Your task to perform on an android device: Search for pizza restaurants on Maps Image 0: 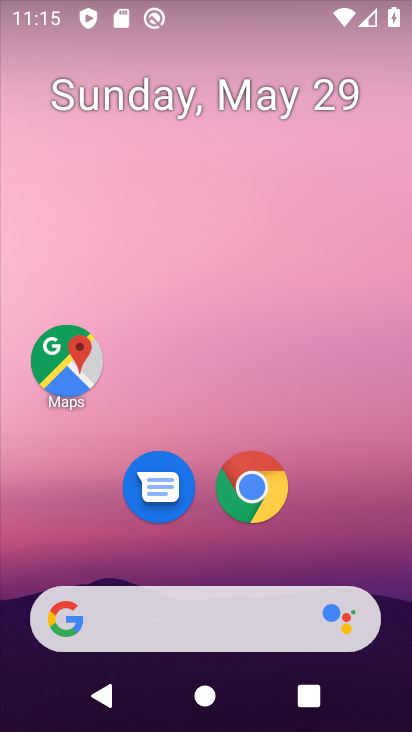
Step 0: drag from (390, 569) to (360, 149)
Your task to perform on an android device: Search for pizza restaurants on Maps Image 1: 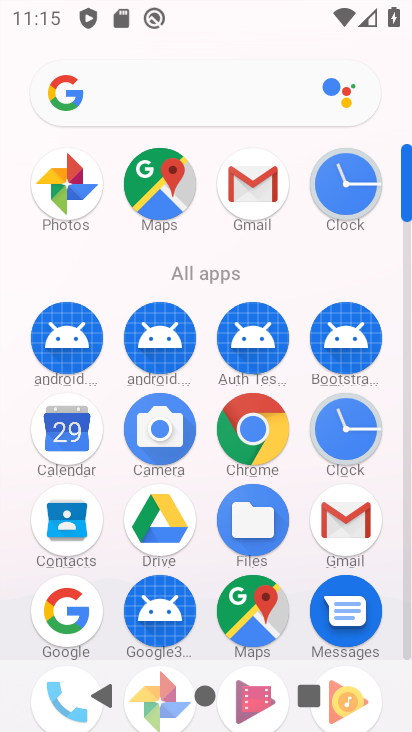
Step 1: click (264, 633)
Your task to perform on an android device: Search for pizza restaurants on Maps Image 2: 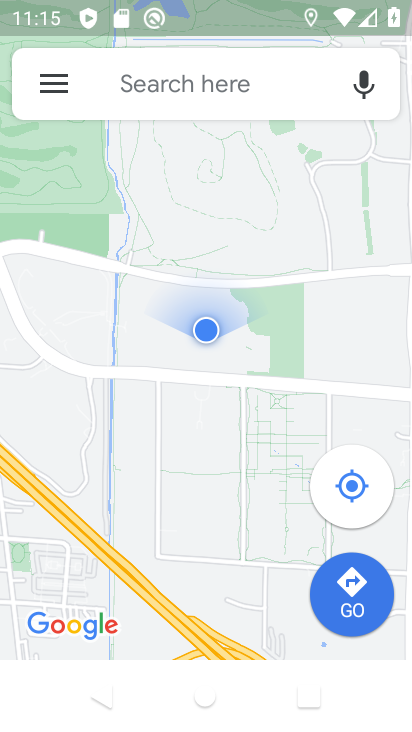
Step 2: click (217, 88)
Your task to perform on an android device: Search for pizza restaurants on Maps Image 3: 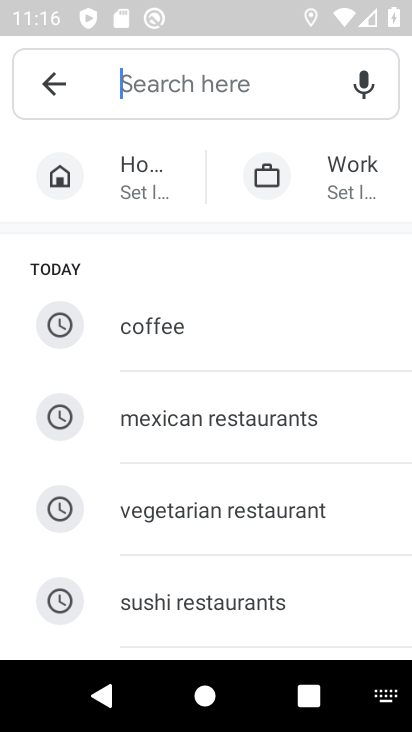
Step 3: type "pizzaa restaurants"
Your task to perform on an android device: Search for pizza restaurants on Maps Image 4: 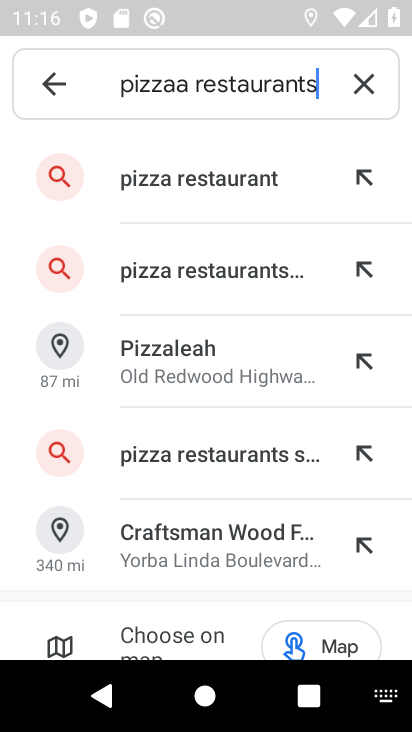
Step 4: click (247, 192)
Your task to perform on an android device: Search for pizza restaurants on Maps Image 5: 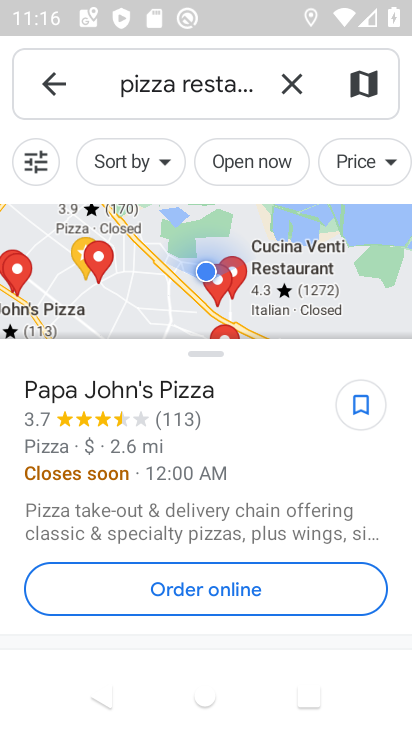
Step 5: task complete